Your task to perform on an android device: Open Google Maps Image 0: 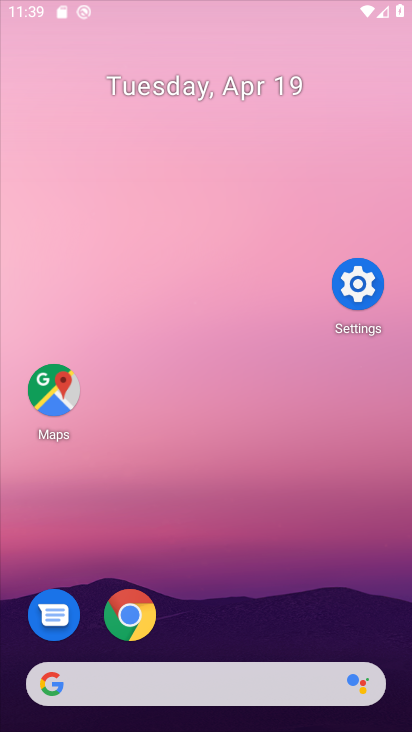
Step 0: drag from (226, 464) to (309, 155)
Your task to perform on an android device: Open Google Maps Image 1: 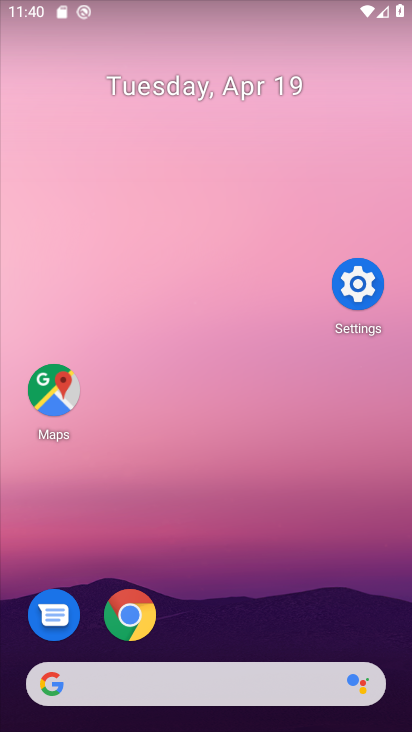
Step 1: drag from (201, 591) to (257, 166)
Your task to perform on an android device: Open Google Maps Image 2: 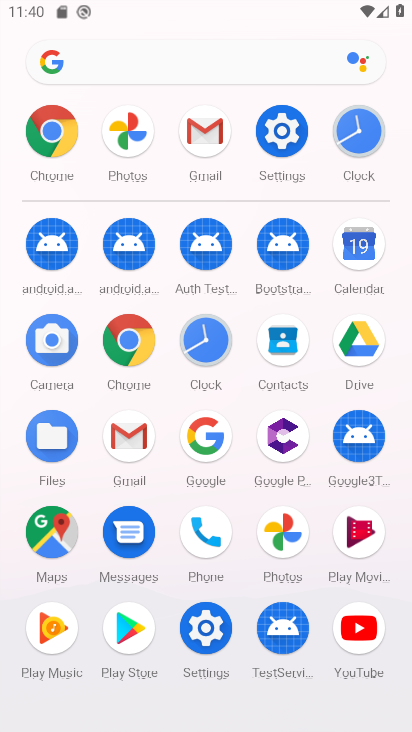
Step 2: click (50, 527)
Your task to perform on an android device: Open Google Maps Image 3: 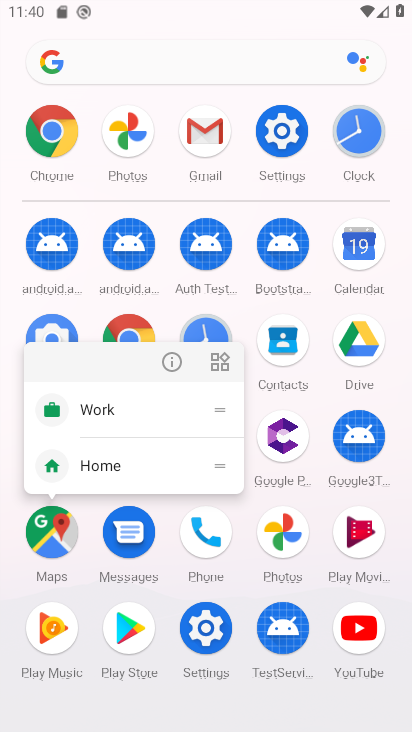
Step 3: click (159, 350)
Your task to perform on an android device: Open Google Maps Image 4: 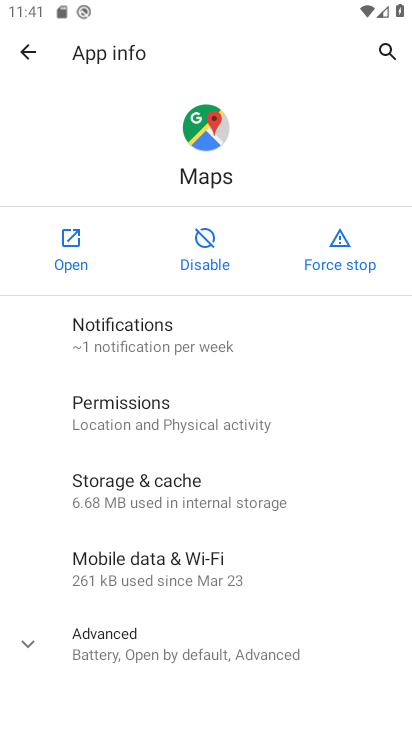
Step 4: click (63, 235)
Your task to perform on an android device: Open Google Maps Image 5: 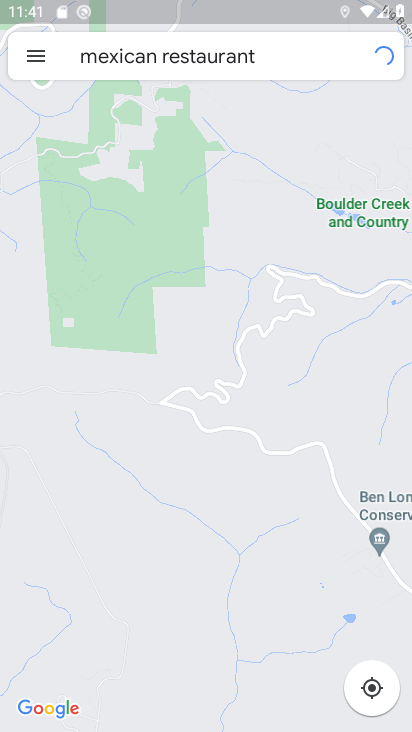
Step 5: task complete